Your task to perform on an android device: move a message to another label in the gmail app Image 0: 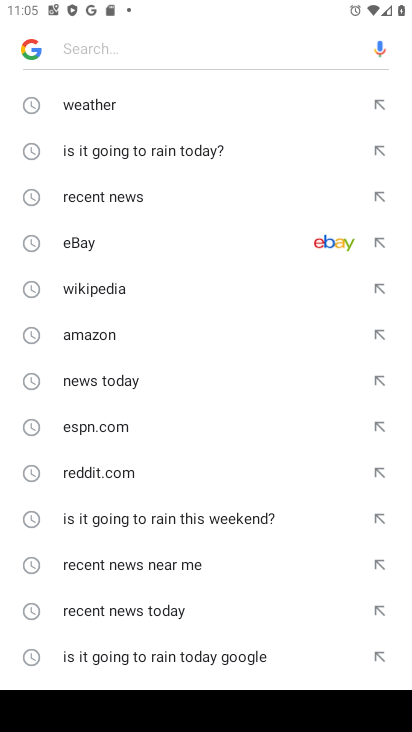
Step 0: press home button
Your task to perform on an android device: move a message to another label in the gmail app Image 1: 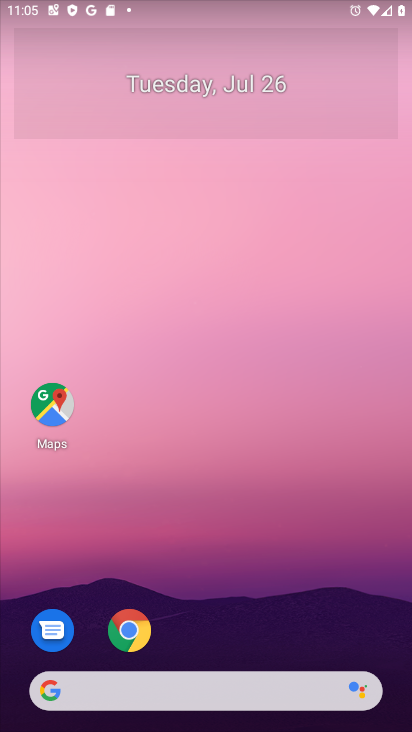
Step 1: drag from (194, 671) to (227, 80)
Your task to perform on an android device: move a message to another label in the gmail app Image 2: 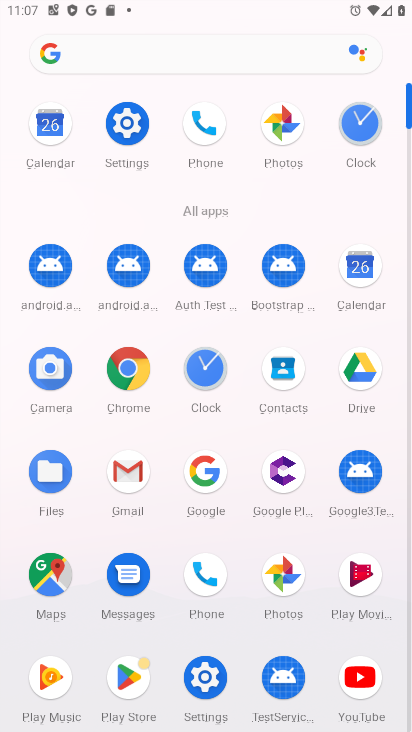
Step 2: click (130, 485)
Your task to perform on an android device: move a message to another label in the gmail app Image 3: 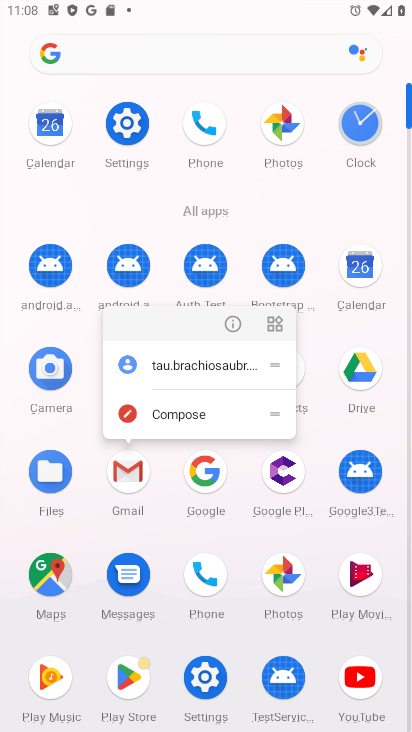
Step 3: click (125, 488)
Your task to perform on an android device: move a message to another label in the gmail app Image 4: 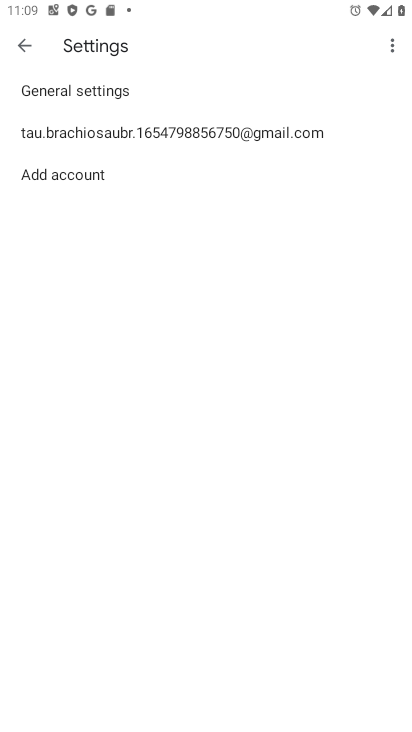
Step 4: click (30, 39)
Your task to perform on an android device: move a message to another label in the gmail app Image 5: 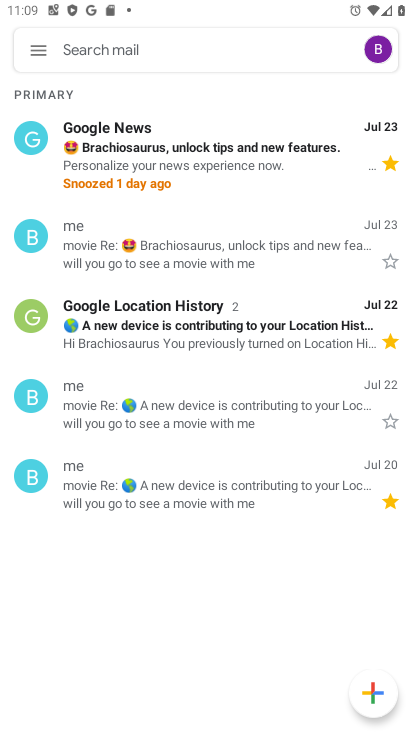
Step 5: click (200, 478)
Your task to perform on an android device: move a message to another label in the gmail app Image 6: 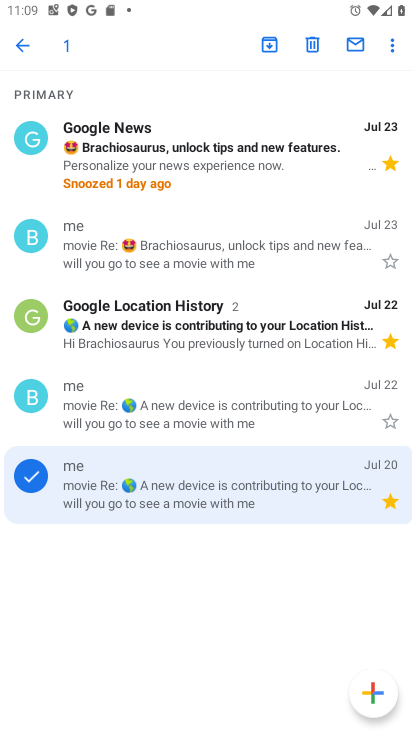
Step 6: click (393, 45)
Your task to perform on an android device: move a message to another label in the gmail app Image 7: 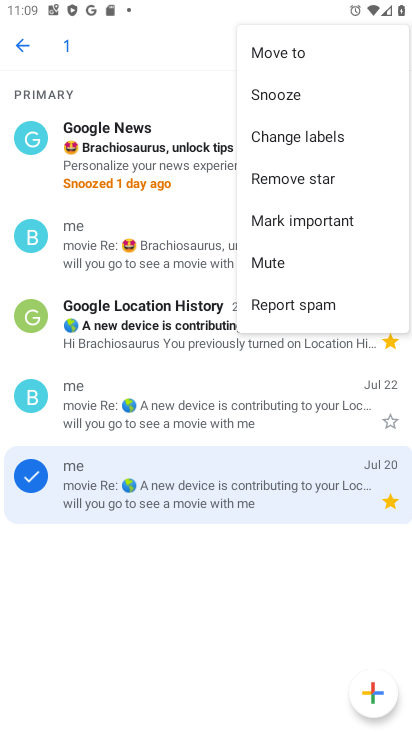
Step 7: click (331, 131)
Your task to perform on an android device: move a message to another label in the gmail app Image 8: 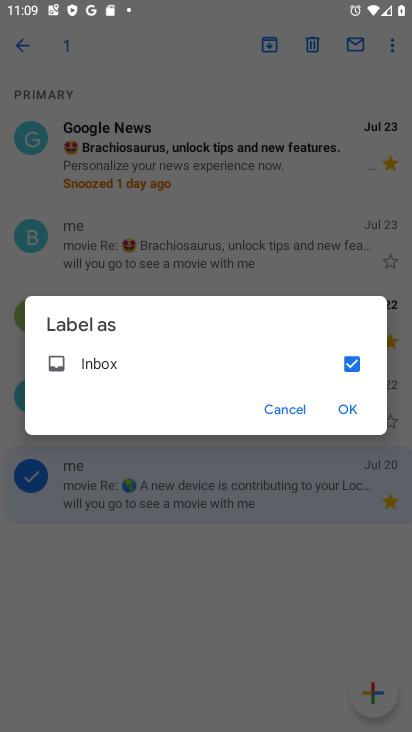
Step 8: click (354, 407)
Your task to perform on an android device: move a message to another label in the gmail app Image 9: 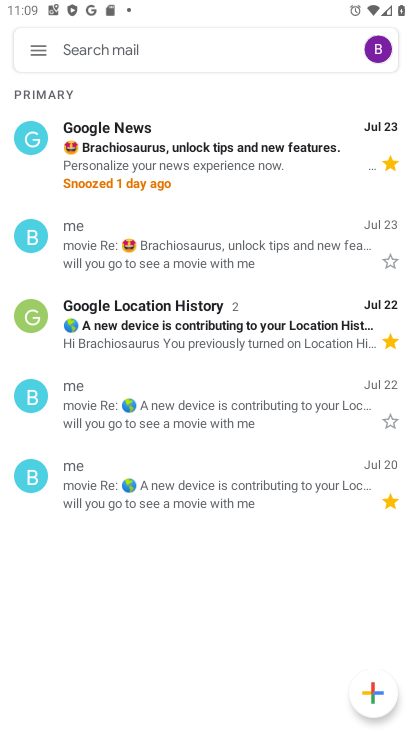
Step 9: task complete